Your task to perform on an android device: Go to CNN.com Image 0: 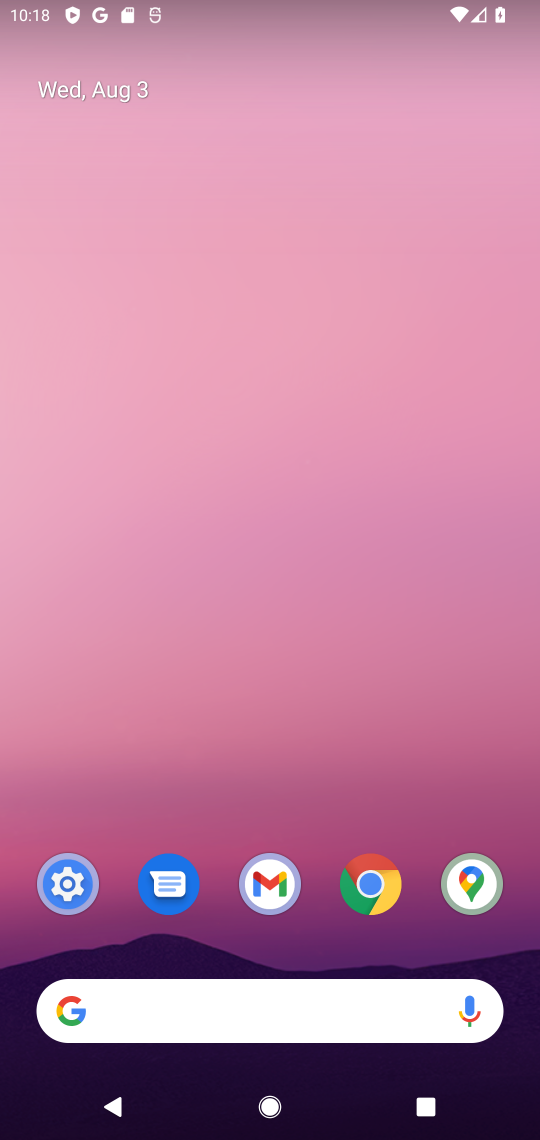
Step 0: press home button
Your task to perform on an android device: Go to CNN.com Image 1: 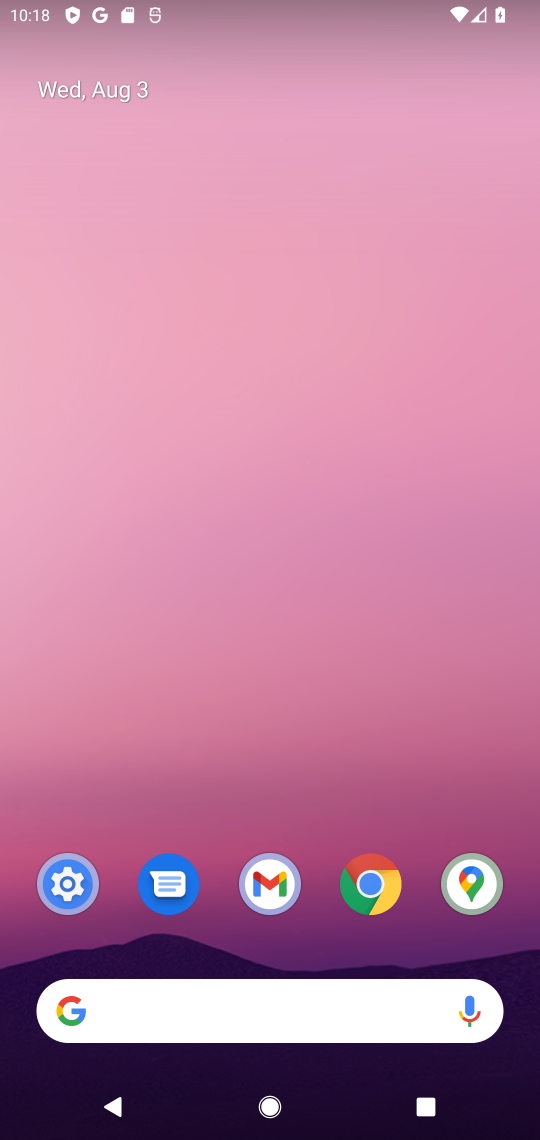
Step 1: click (78, 996)
Your task to perform on an android device: Go to CNN.com Image 2: 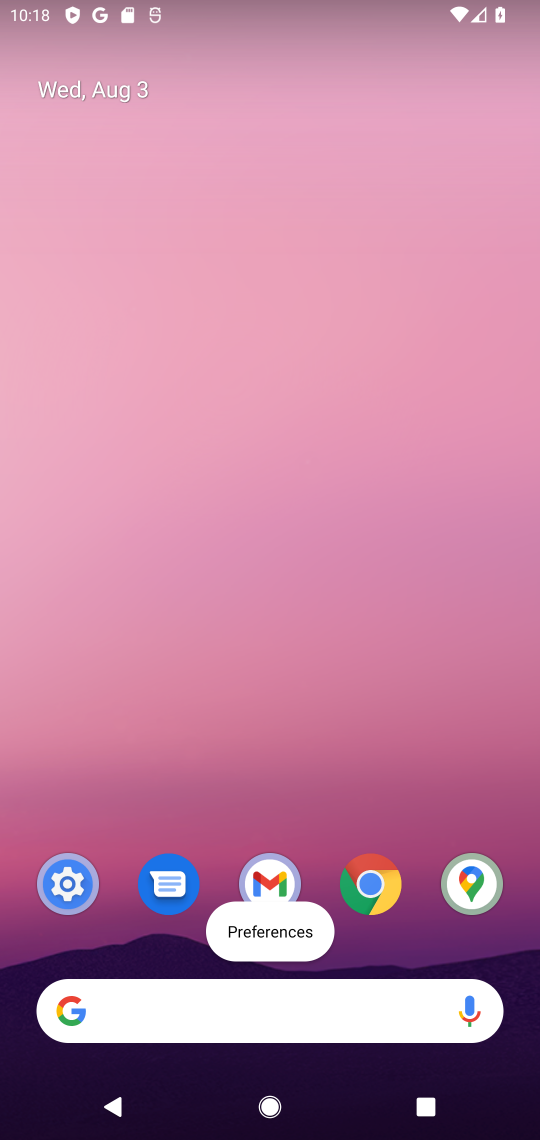
Step 2: click (71, 1002)
Your task to perform on an android device: Go to CNN.com Image 3: 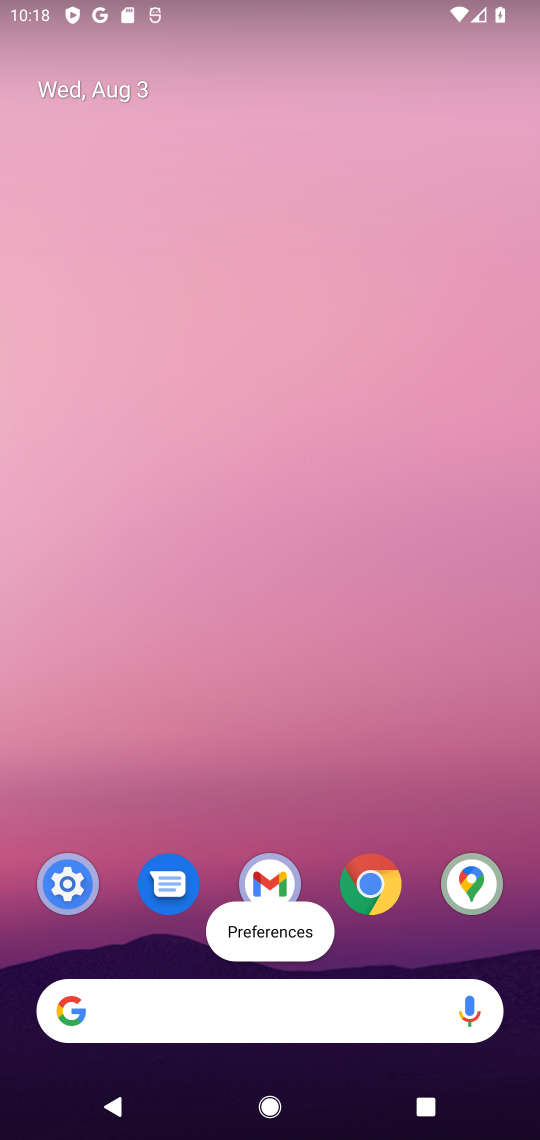
Step 3: click (71, 1002)
Your task to perform on an android device: Go to CNN.com Image 4: 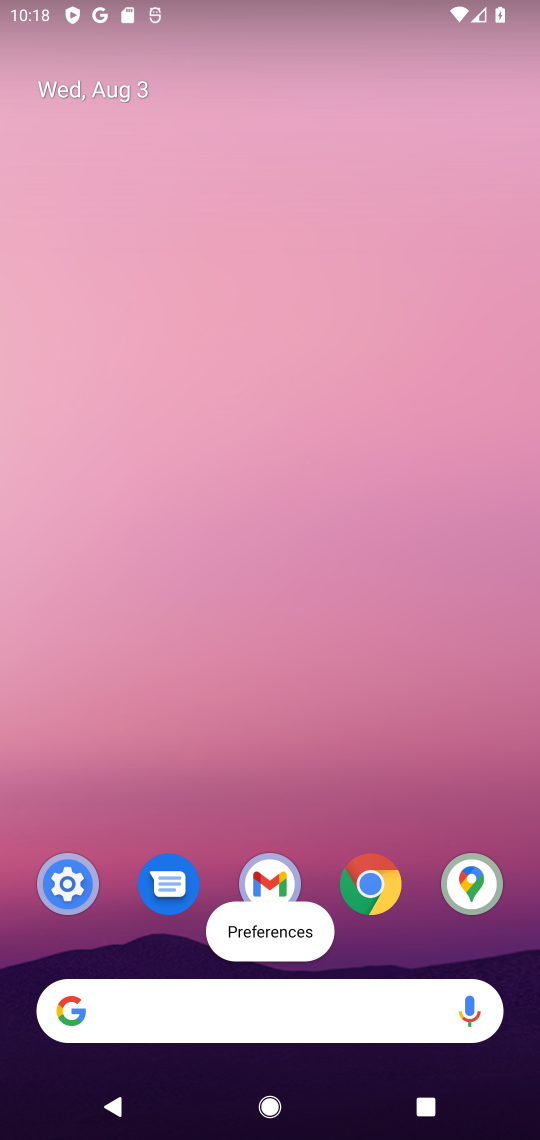
Step 4: click (76, 1007)
Your task to perform on an android device: Go to CNN.com Image 5: 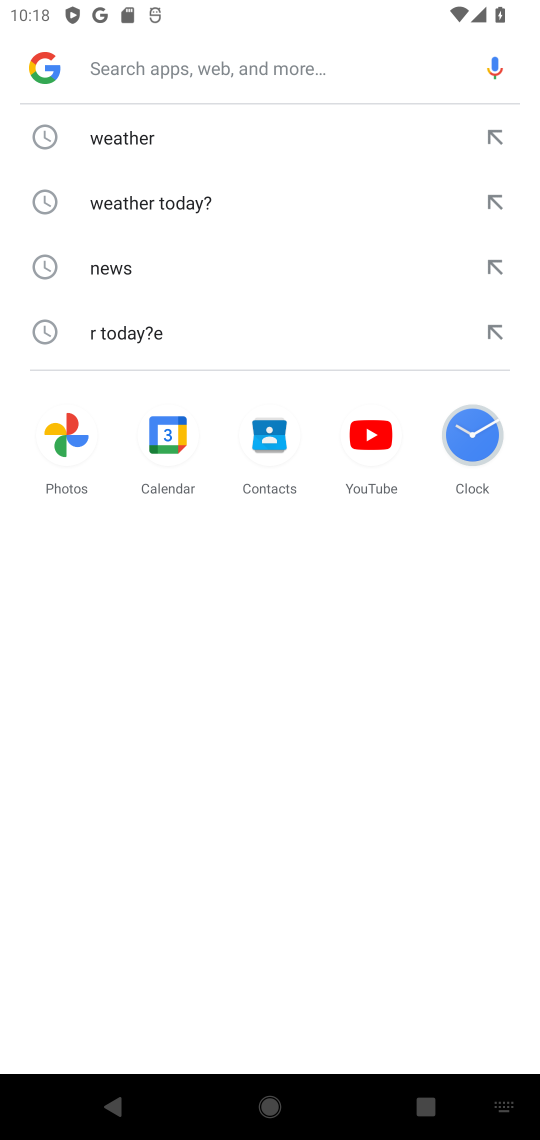
Step 5: type " CNN.com"
Your task to perform on an android device: Go to CNN.com Image 6: 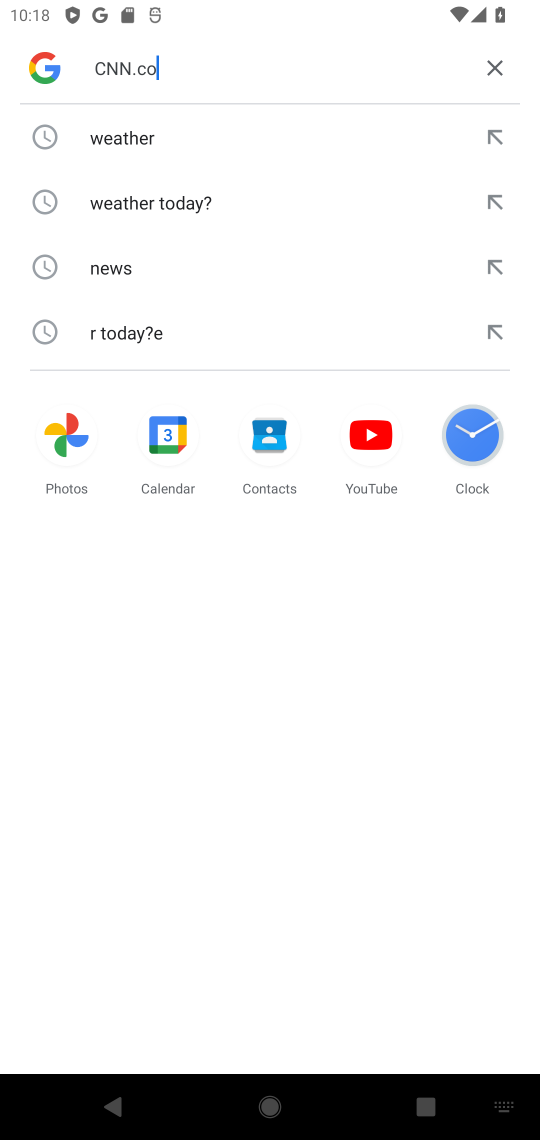
Step 6: press enter
Your task to perform on an android device: Go to CNN.com Image 7: 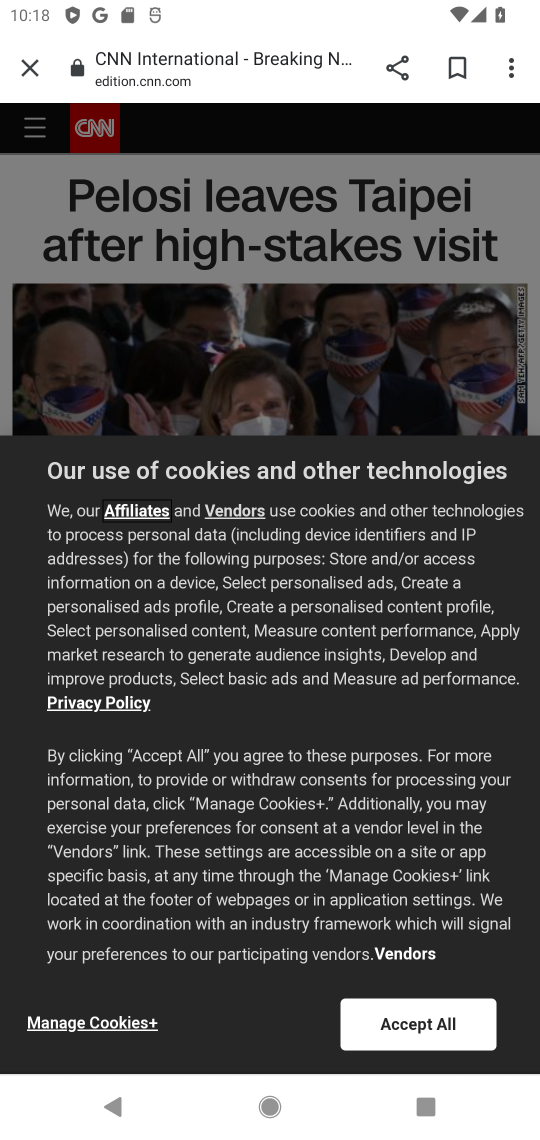
Step 7: task complete